Your task to perform on an android device: set an alarm Image 0: 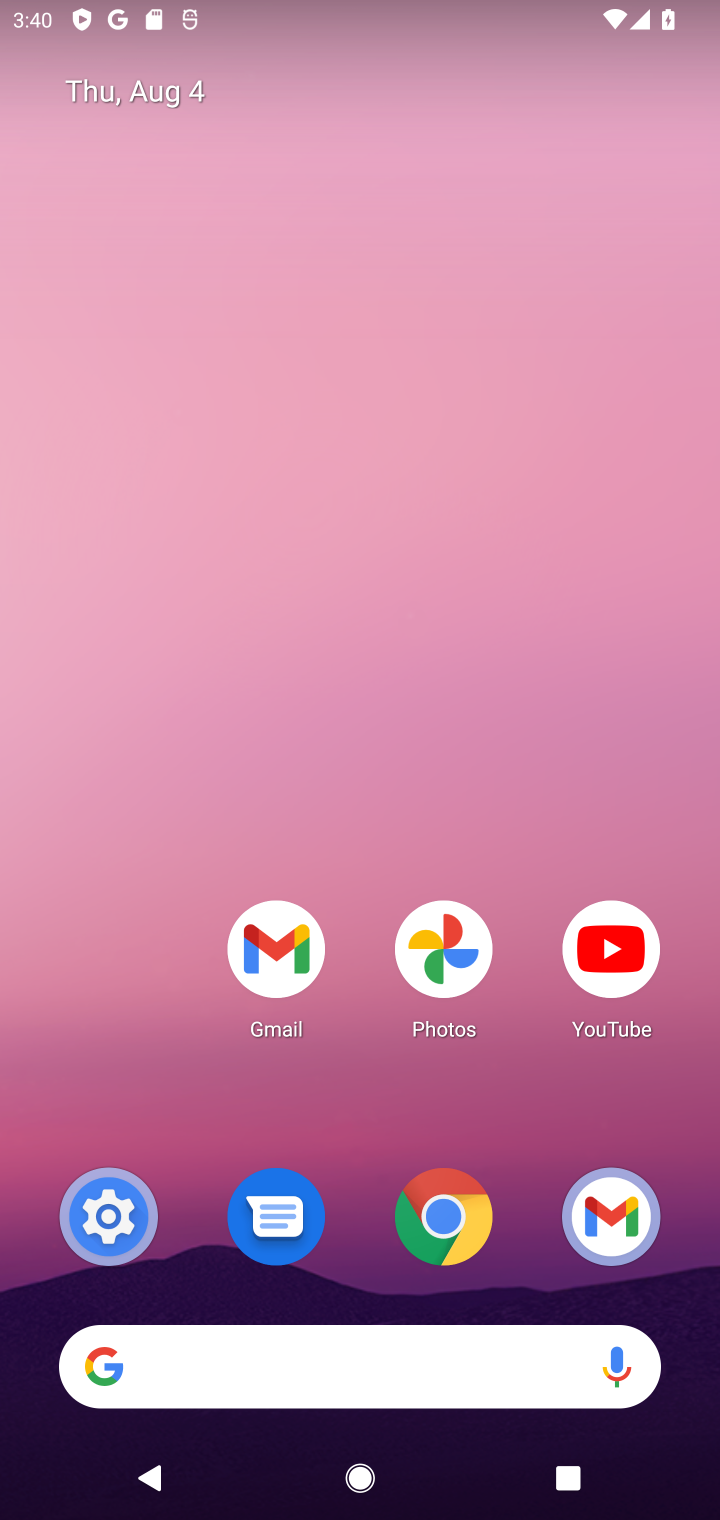
Step 0: drag from (167, 1083) to (417, 19)
Your task to perform on an android device: set an alarm Image 1: 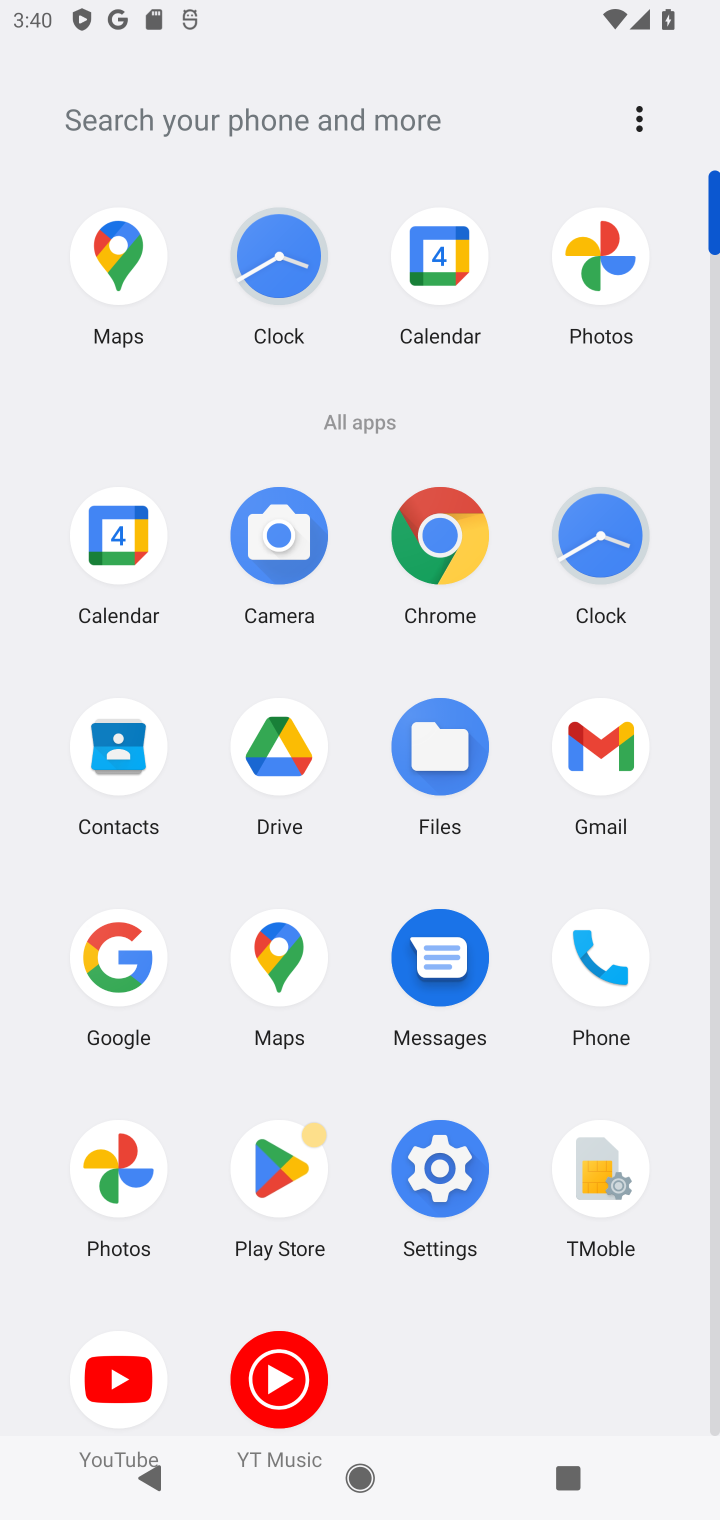
Step 1: click (578, 540)
Your task to perform on an android device: set an alarm Image 2: 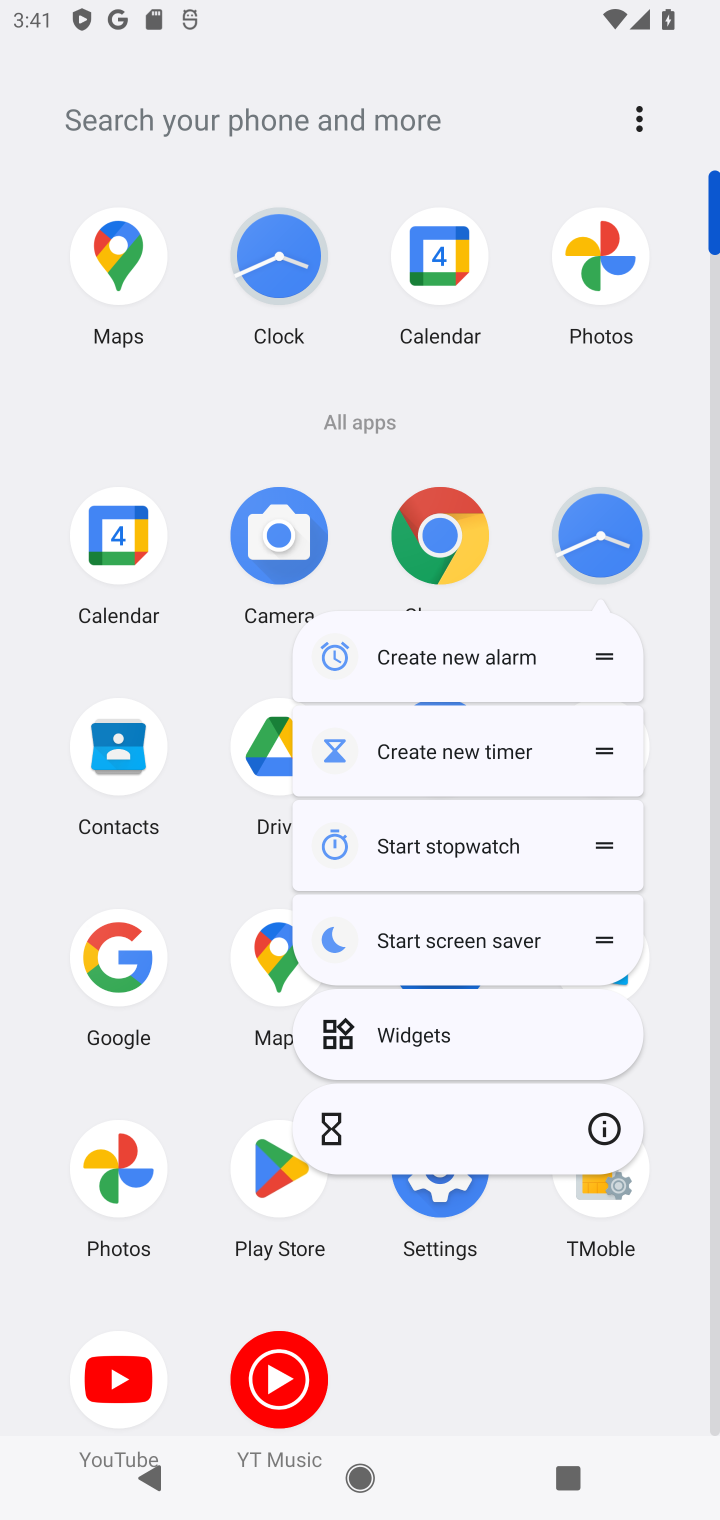
Step 2: click (619, 526)
Your task to perform on an android device: set an alarm Image 3: 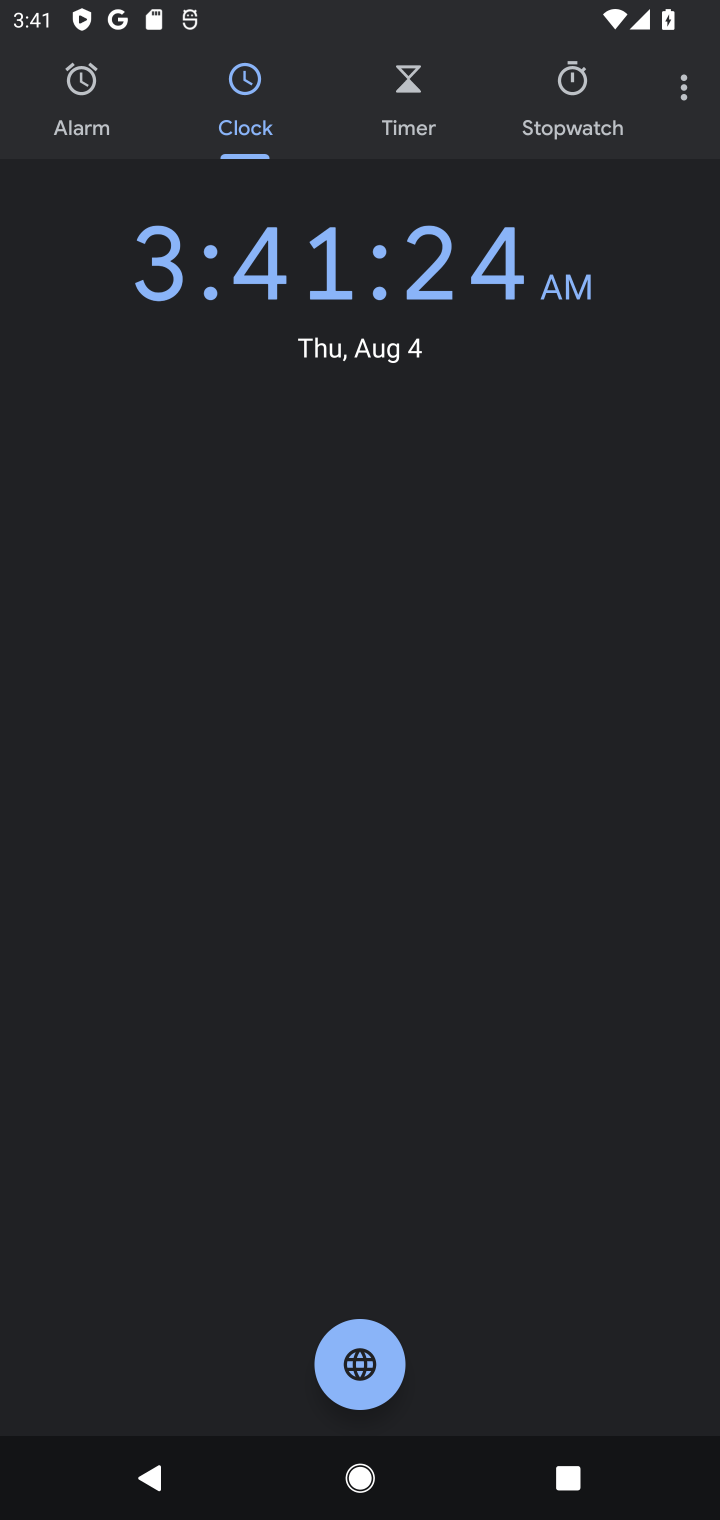
Step 3: click (76, 106)
Your task to perform on an android device: set an alarm Image 4: 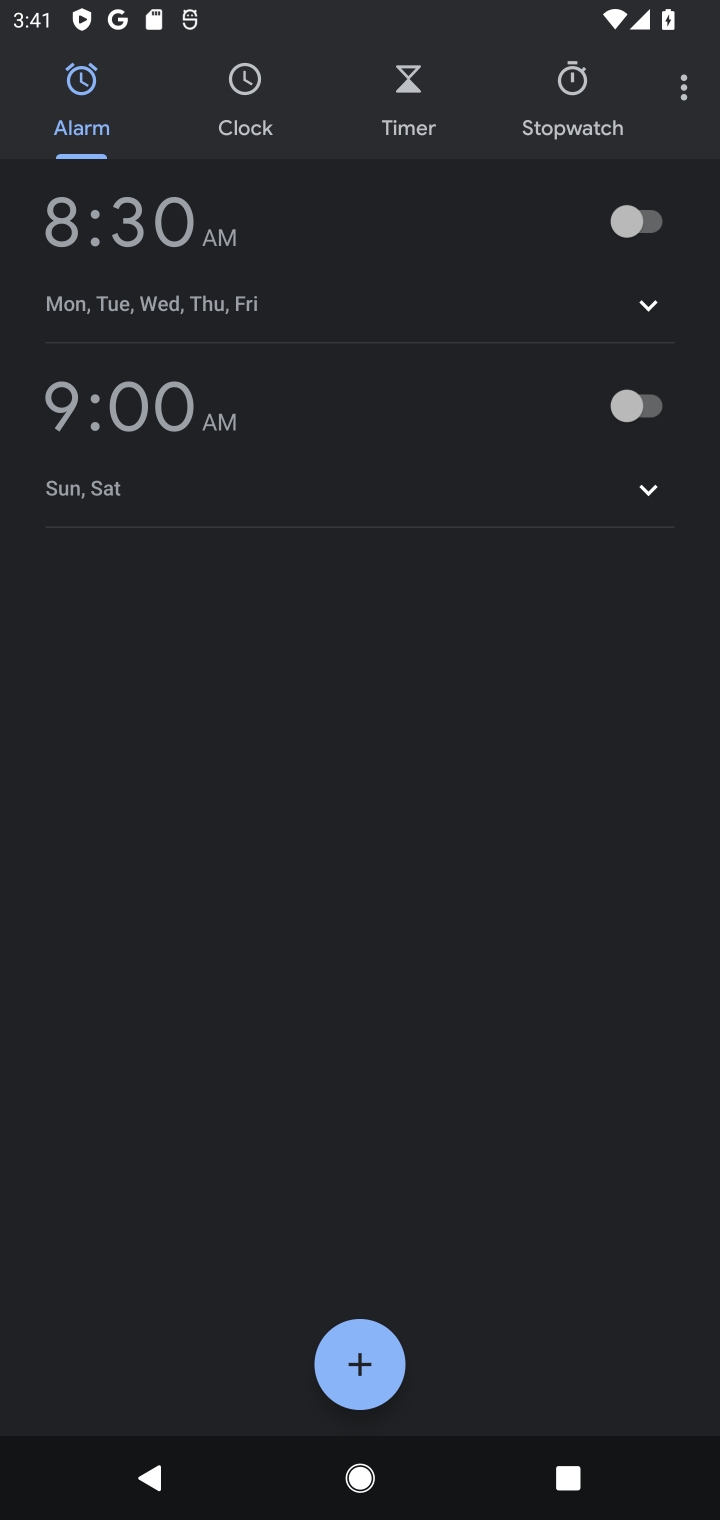
Step 4: click (623, 230)
Your task to perform on an android device: set an alarm Image 5: 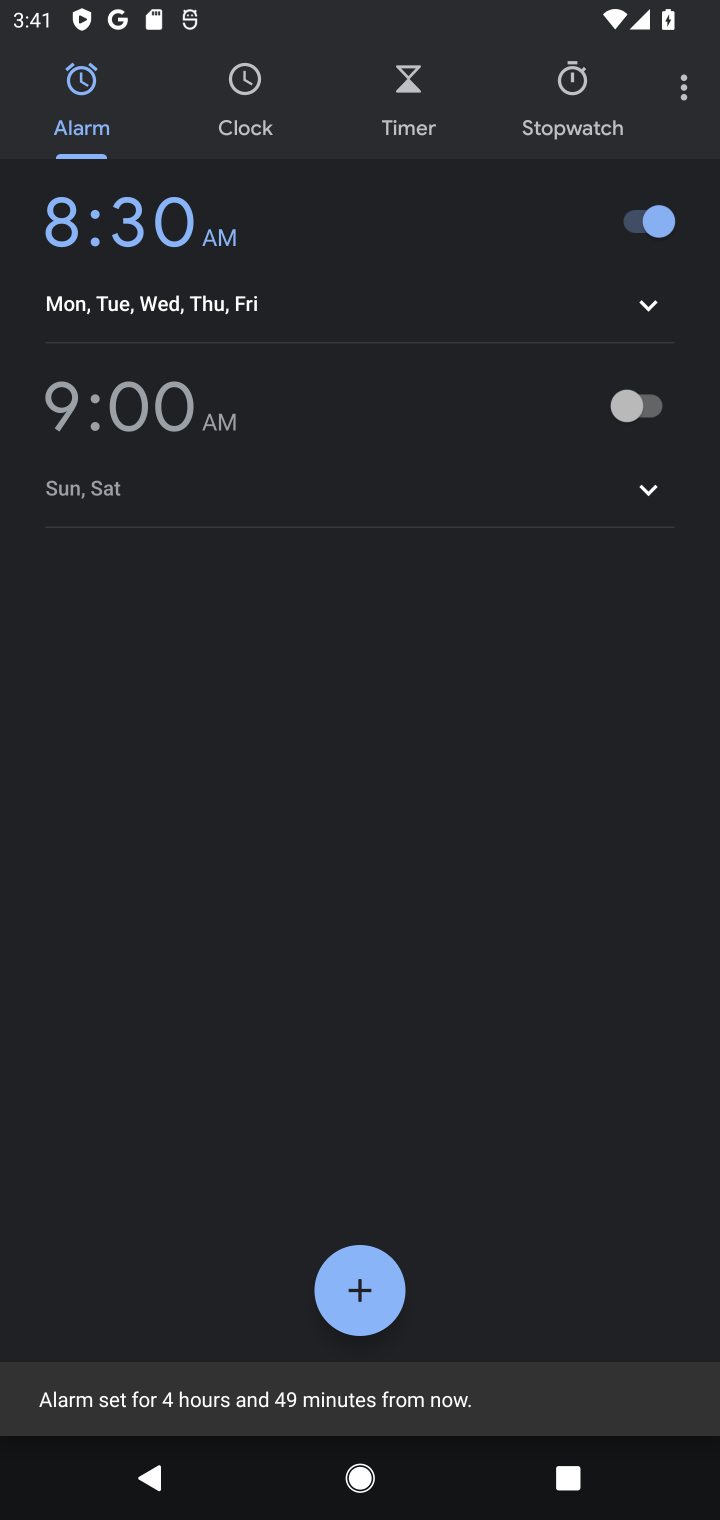
Step 5: task complete